Your task to perform on an android device: show emergency info Image 0: 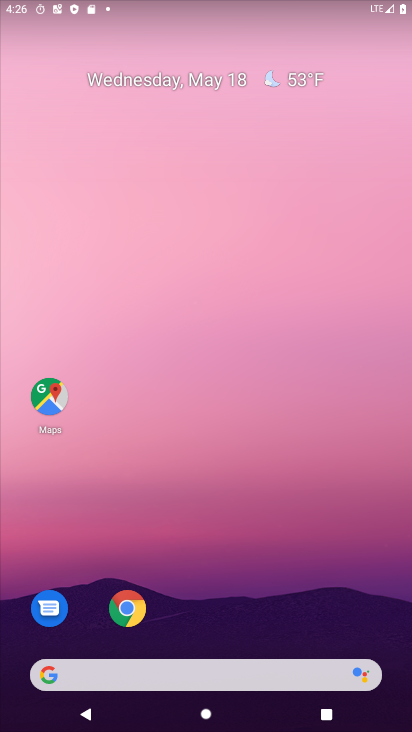
Step 0: drag from (313, 654) to (320, 8)
Your task to perform on an android device: show emergency info Image 1: 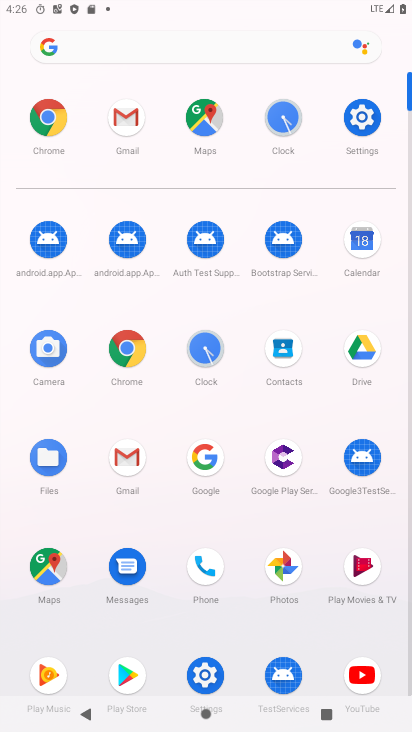
Step 1: click (370, 114)
Your task to perform on an android device: show emergency info Image 2: 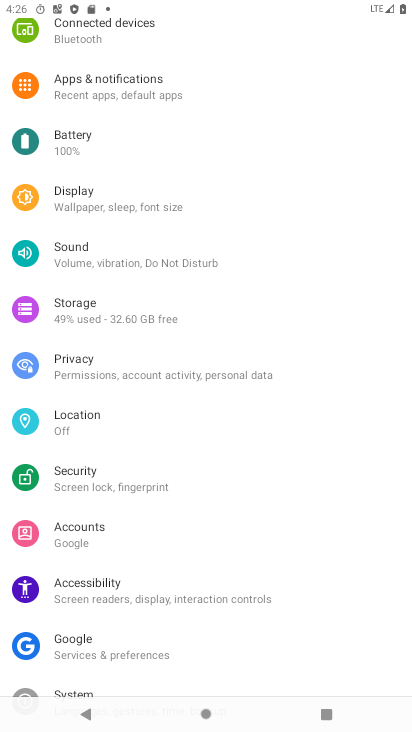
Step 2: drag from (214, 672) to (231, 173)
Your task to perform on an android device: show emergency info Image 3: 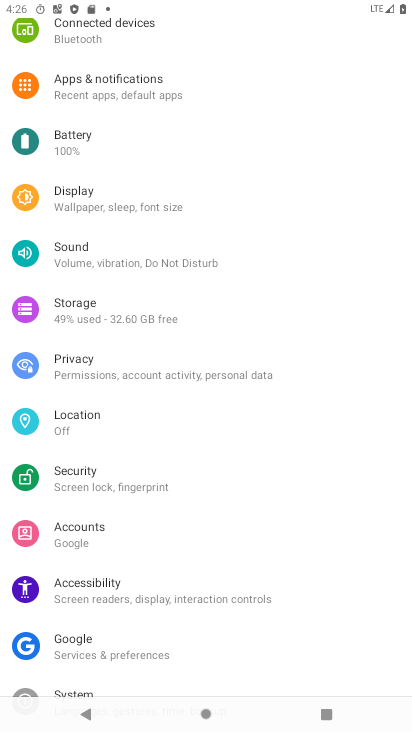
Step 3: drag from (241, 662) to (311, 169)
Your task to perform on an android device: show emergency info Image 4: 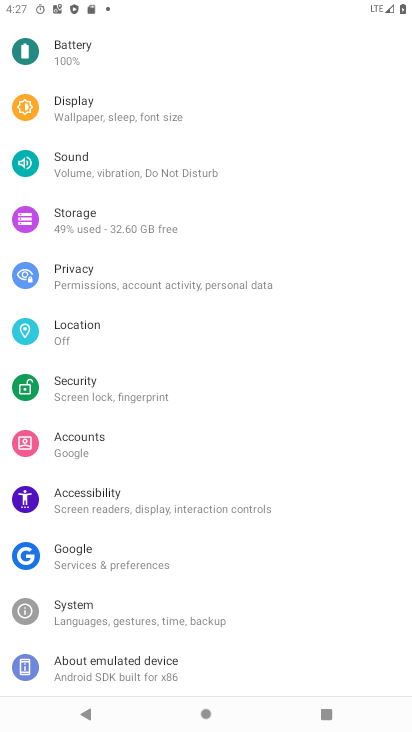
Step 4: click (87, 676)
Your task to perform on an android device: show emergency info Image 5: 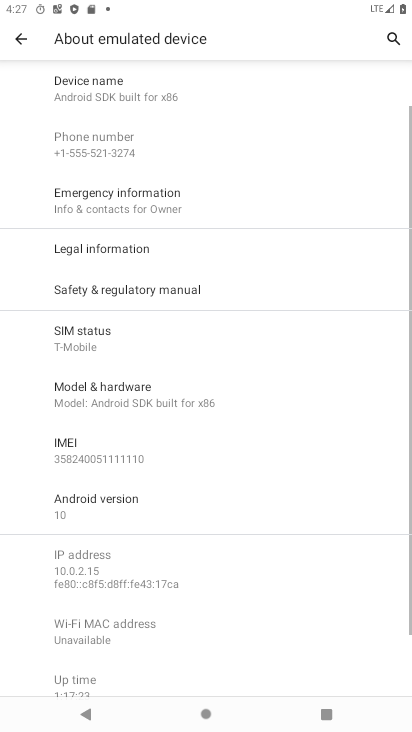
Step 5: click (164, 196)
Your task to perform on an android device: show emergency info Image 6: 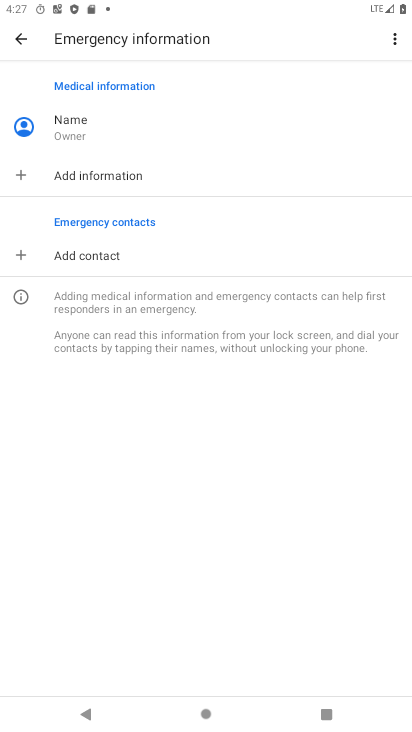
Step 6: task complete